Your task to perform on an android device: Find coffee shops on Maps Image 0: 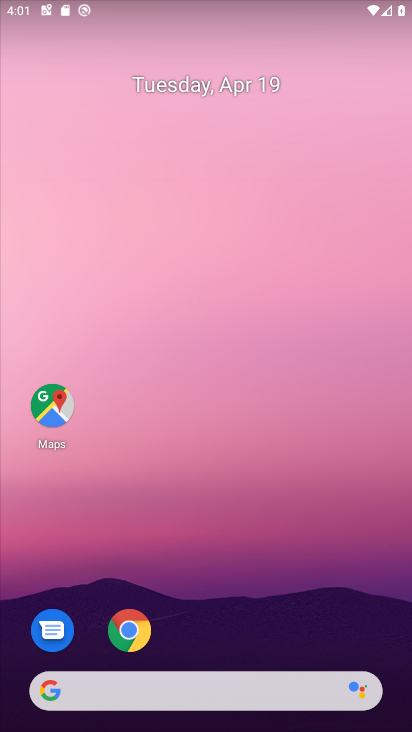
Step 0: click (51, 412)
Your task to perform on an android device: Find coffee shops on Maps Image 1: 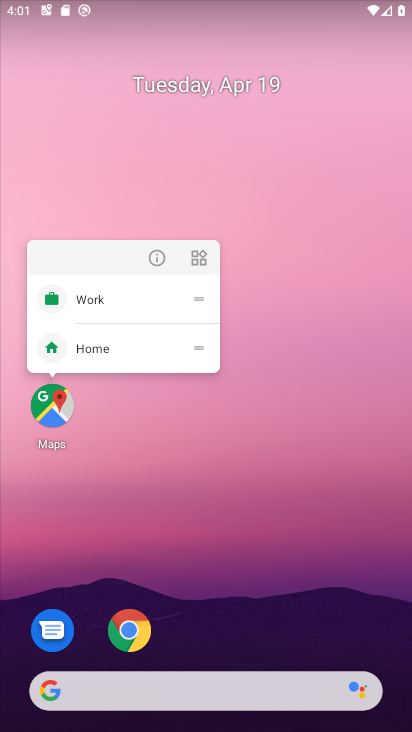
Step 1: click (54, 413)
Your task to perform on an android device: Find coffee shops on Maps Image 2: 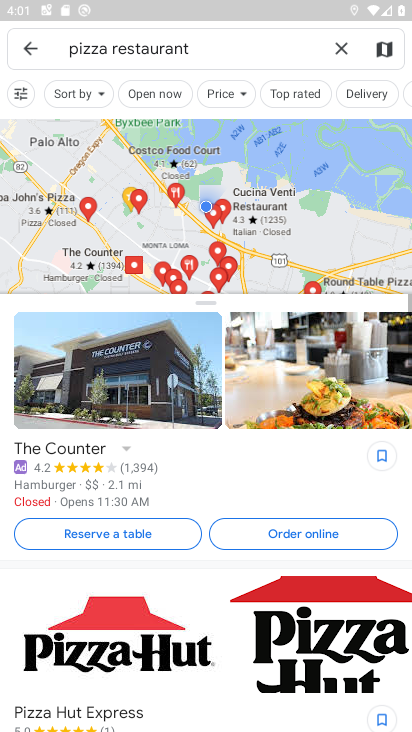
Step 2: click (341, 45)
Your task to perform on an android device: Find coffee shops on Maps Image 3: 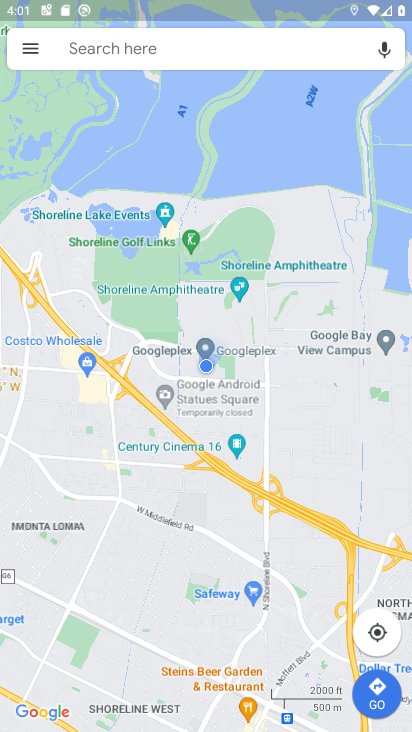
Step 3: click (227, 56)
Your task to perform on an android device: Find coffee shops on Maps Image 4: 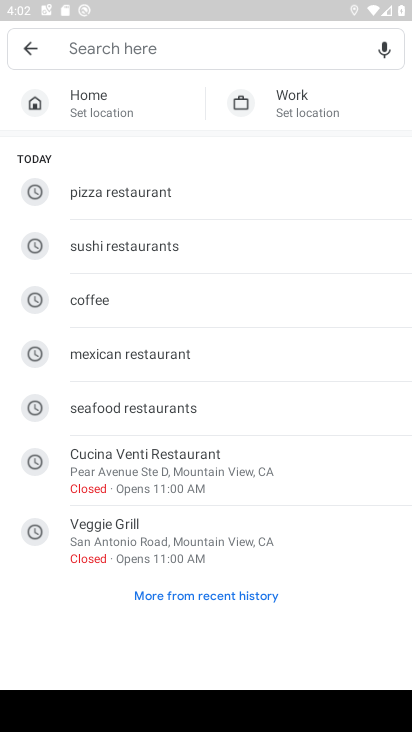
Step 4: type "coffee shop"
Your task to perform on an android device: Find coffee shops on Maps Image 5: 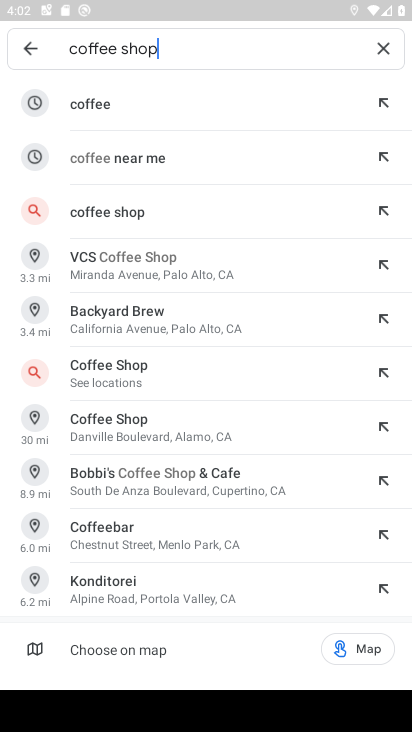
Step 5: click (140, 210)
Your task to perform on an android device: Find coffee shops on Maps Image 6: 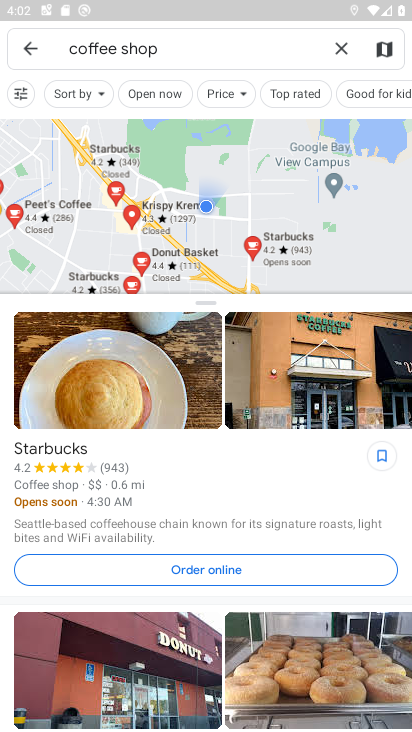
Step 6: task complete